Your task to perform on an android device: Open calendar and show me the third week of next month Image 0: 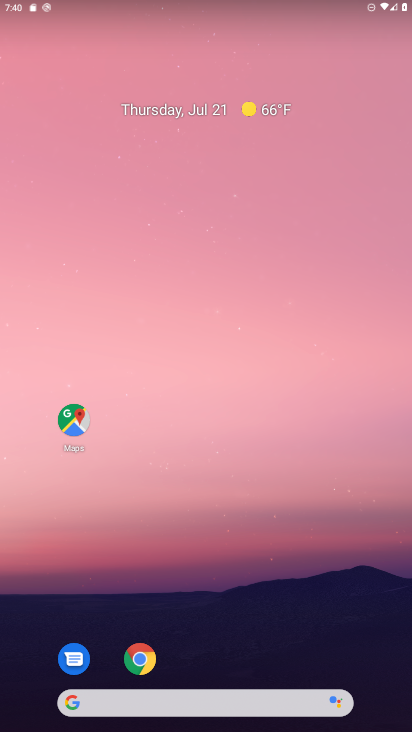
Step 0: drag from (188, 610) to (188, 134)
Your task to perform on an android device: Open calendar and show me the third week of next month Image 1: 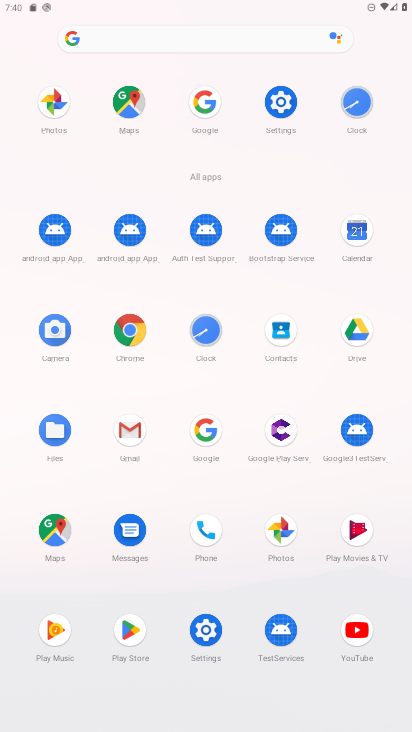
Step 1: click (351, 223)
Your task to perform on an android device: Open calendar and show me the third week of next month Image 2: 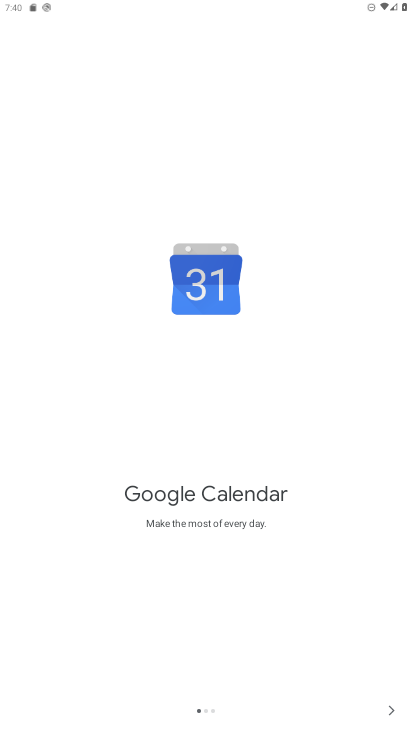
Step 2: drag from (239, 575) to (298, 188)
Your task to perform on an android device: Open calendar and show me the third week of next month Image 3: 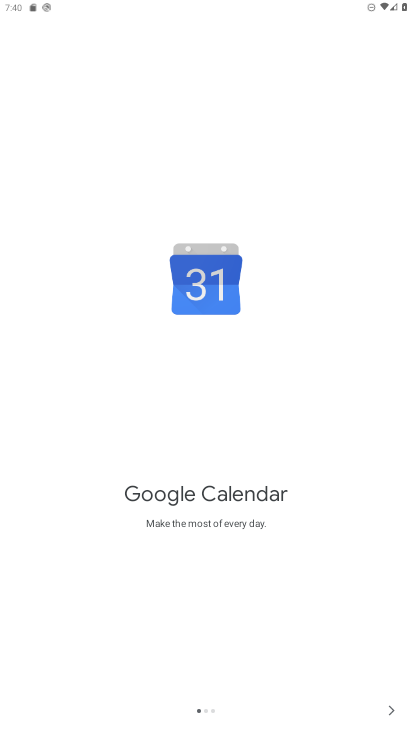
Step 3: click (391, 701)
Your task to perform on an android device: Open calendar and show me the third week of next month Image 4: 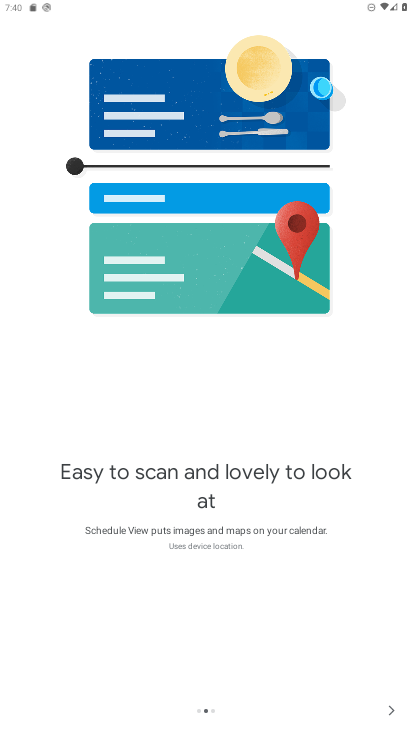
Step 4: click (390, 710)
Your task to perform on an android device: Open calendar and show me the third week of next month Image 5: 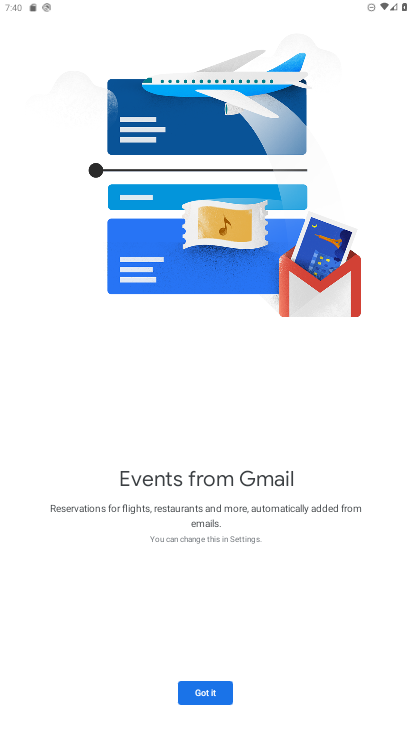
Step 5: click (384, 706)
Your task to perform on an android device: Open calendar and show me the third week of next month Image 6: 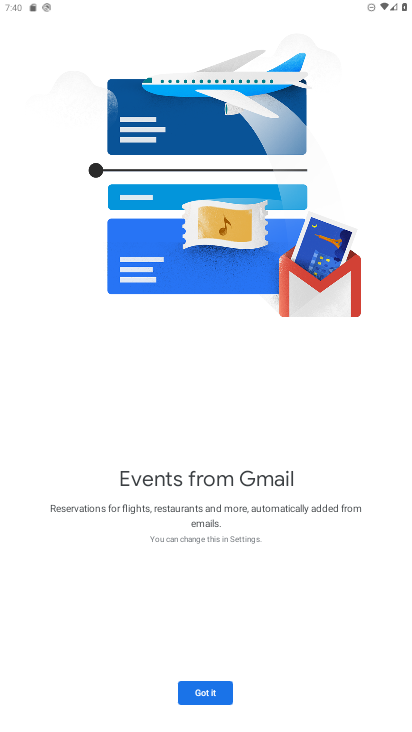
Step 6: click (225, 702)
Your task to perform on an android device: Open calendar and show me the third week of next month Image 7: 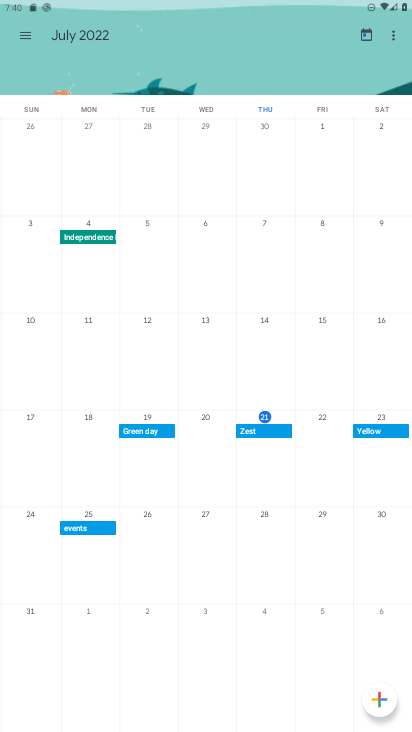
Step 7: drag from (372, 327) to (39, 256)
Your task to perform on an android device: Open calendar and show me the third week of next month Image 8: 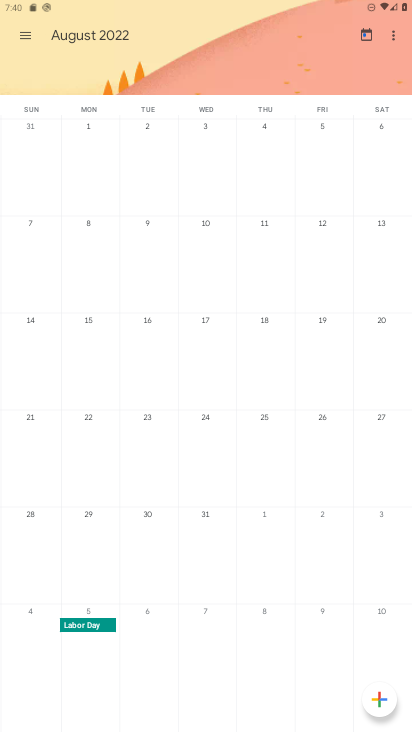
Step 8: click (318, 422)
Your task to perform on an android device: Open calendar and show me the third week of next month Image 9: 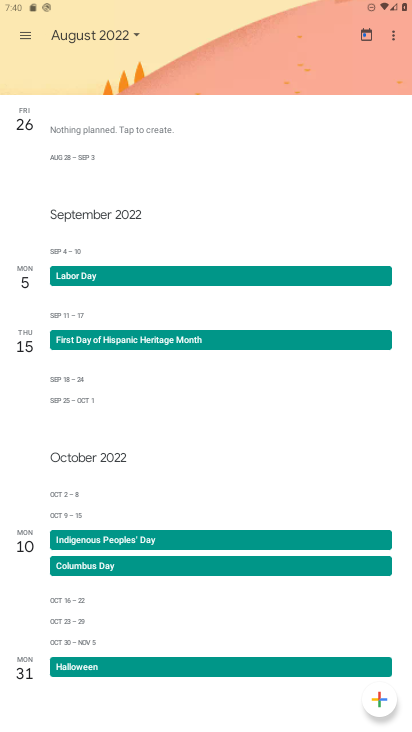
Step 9: task complete